Your task to perform on an android device: see creations saved in the google photos Image 0: 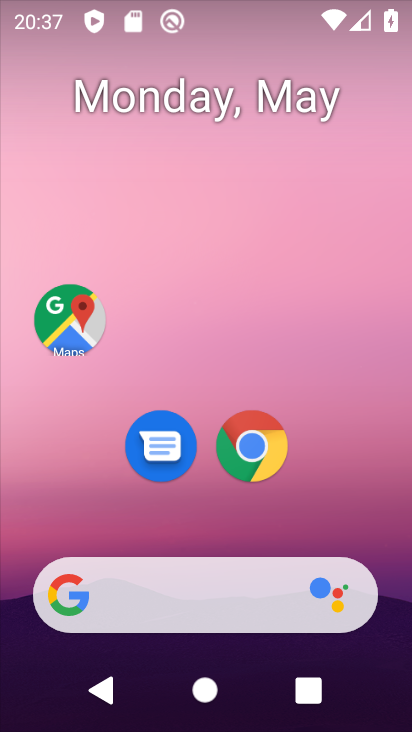
Step 0: drag from (408, 185) to (378, 7)
Your task to perform on an android device: see creations saved in the google photos Image 1: 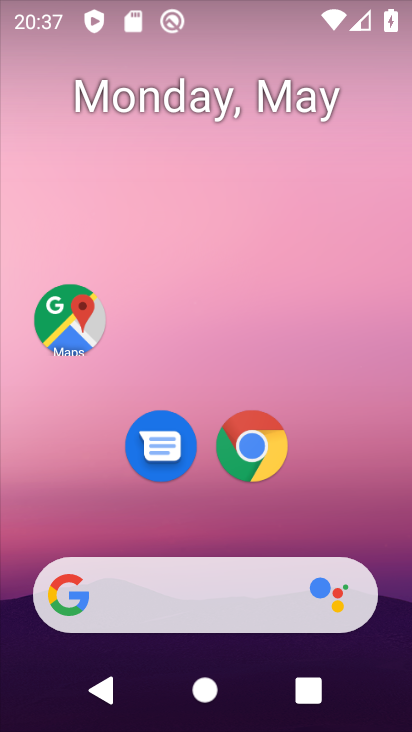
Step 1: drag from (377, 472) to (376, 75)
Your task to perform on an android device: see creations saved in the google photos Image 2: 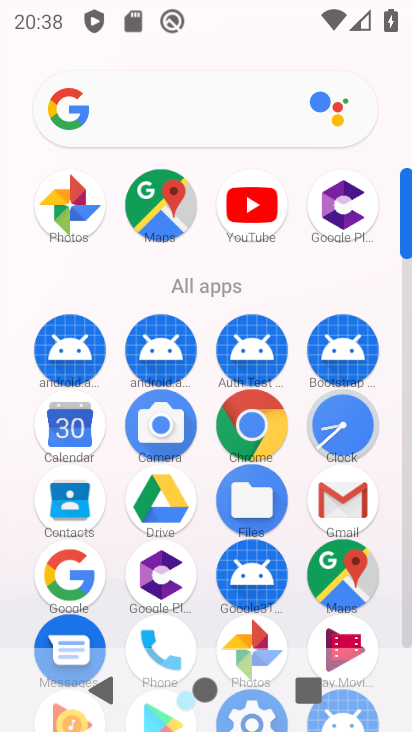
Step 2: click (252, 631)
Your task to perform on an android device: see creations saved in the google photos Image 3: 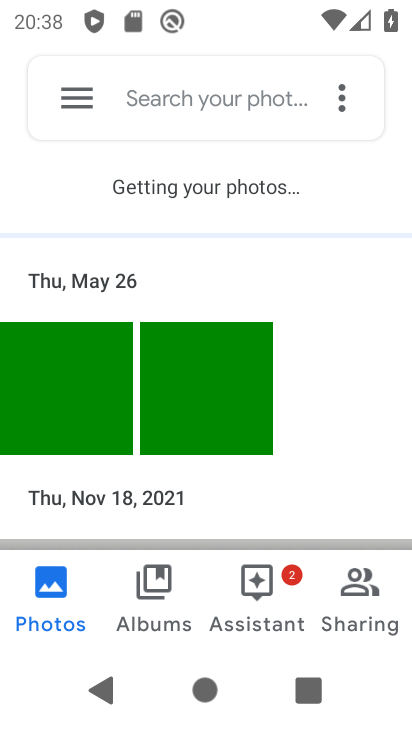
Step 3: click (261, 588)
Your task to perform on an android device: see creations saved in the google photos Image 4: 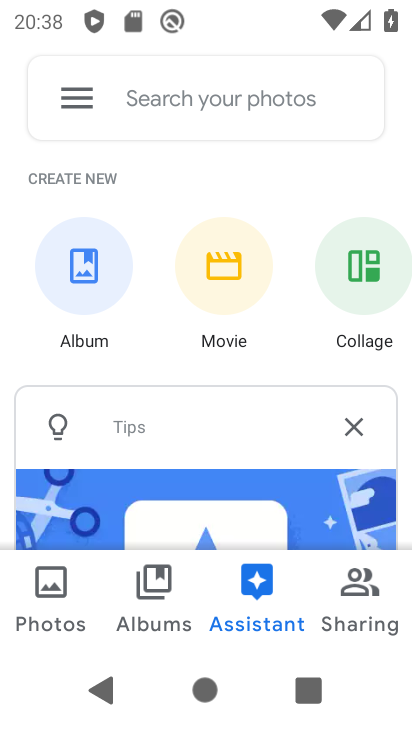
Step 4: task complete